Your task to perform on an android device: Turn off the flashlight Image 0: 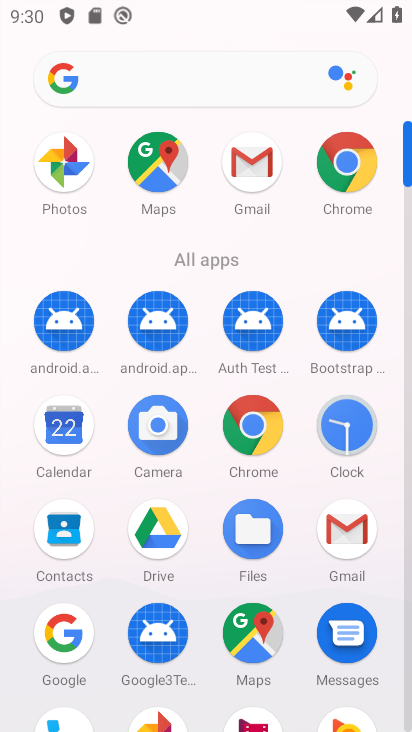
Step 0: press home button
Your task to perform on an android device: Turn off the flashlight Image 1: 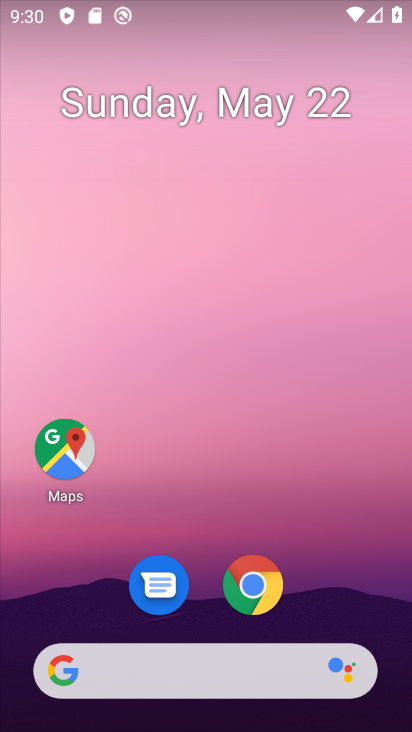
Step 1: drag from (203, 507) to (255, 27)
Your task to perform on an android device: Turn off the flashlight Image 2: 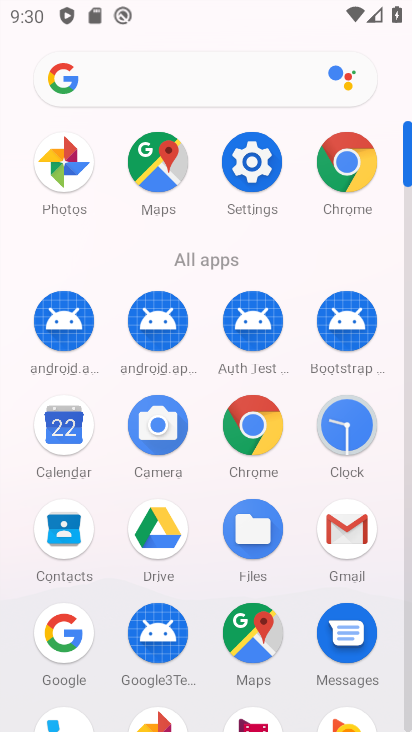
Step 2: click (247, 149)
Your task to perform on an android device: Turn off the flashlight Image 3: 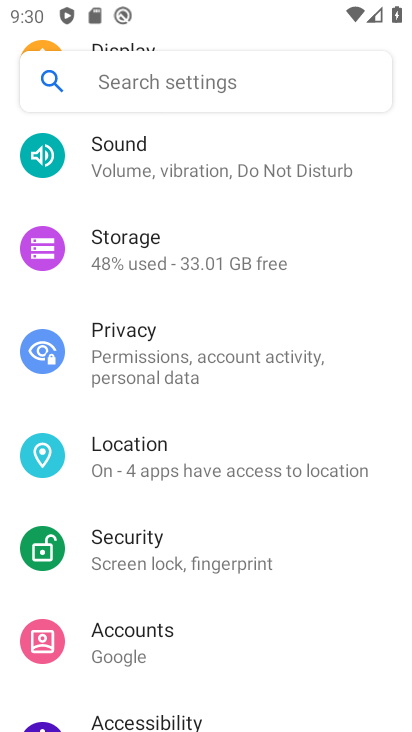
Step 3: drag from (218, 311) to (202, 572)
Your task to perform on an android device: Turn off the flashlight Image 4: 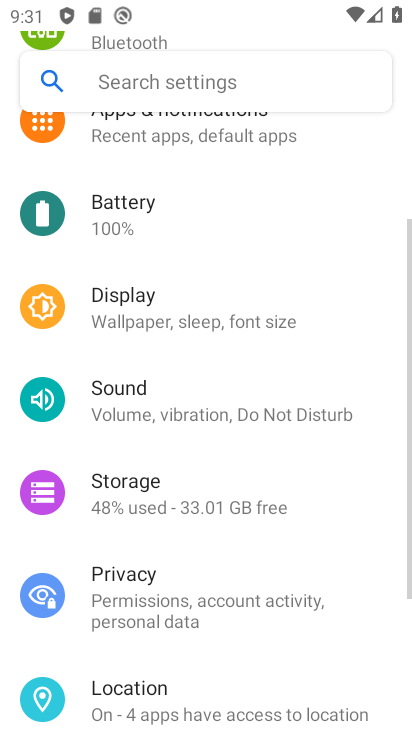
Step 4: drag from (227, 232) to (224, 537)
Your task to perform on an android device: Turn off the flashlight Image 5: 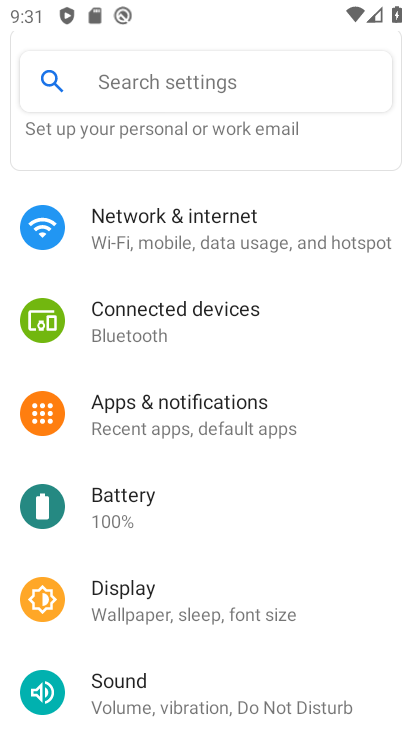
Step 5: drag from (264, 256) to (243, 554)
Your task to perform on an android device: Turn off the flashlight Image 6: 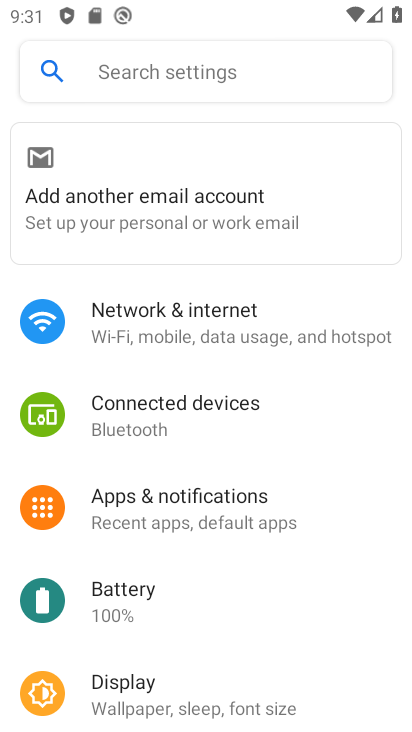
Step 6: click (285, 67)
Your task to perform on an android device: Turn off the flashlight Image 7: 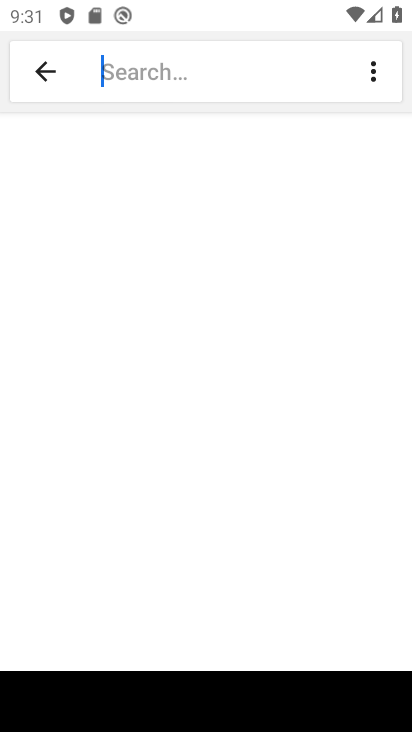
Step 7: type "Flashlight"
Your task to perform on an android device: Turn off the flashlight Image 8: 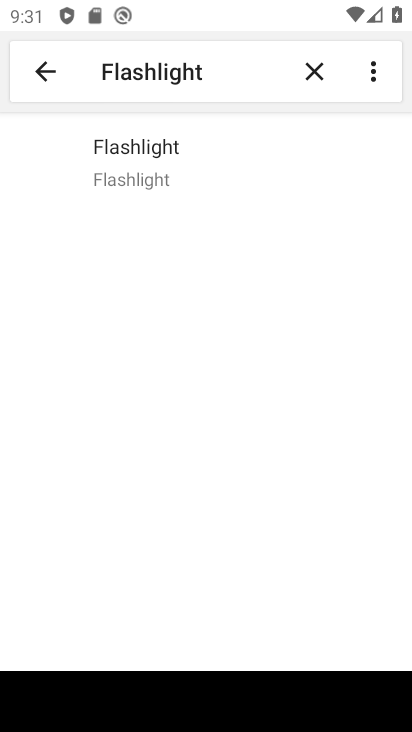
Step 8: click (136, 159)
Your task to perform on an android device: Turn off the flashlight Image 9: 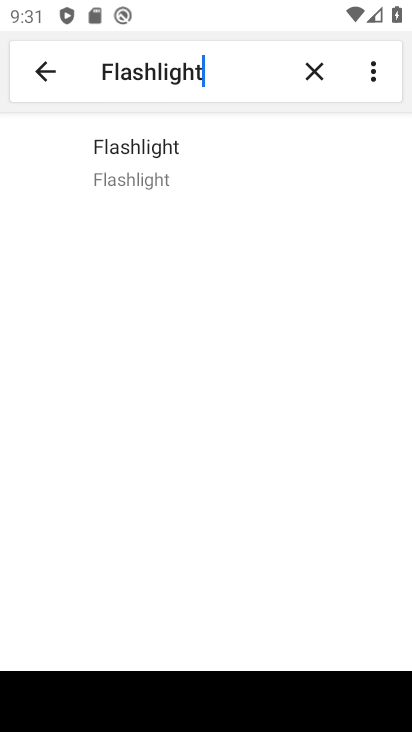
Step 9: click (136, 158)
Your task to perform on an android device: Turn off the flashlight Image 10: 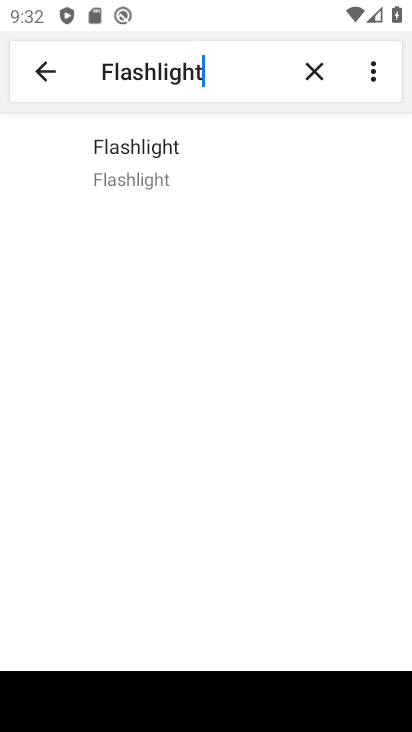
Step 10: task complete